Your task to perform on an android device: Open my contact list Image 0: 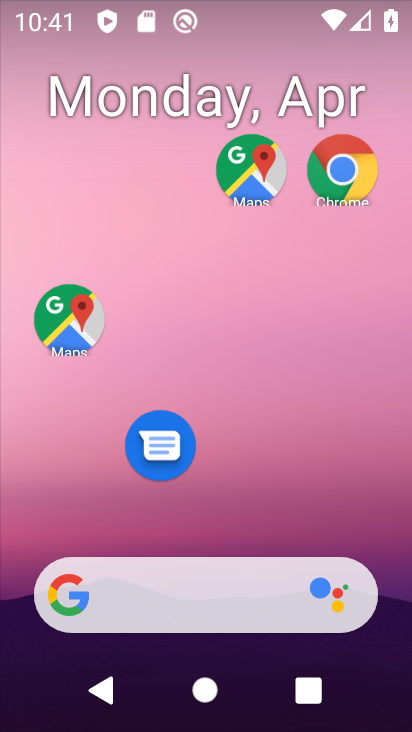
Step 0: drag from (222, 490) to (262, 63)
Your task to perform on an android device: Open my contact list Image 1: 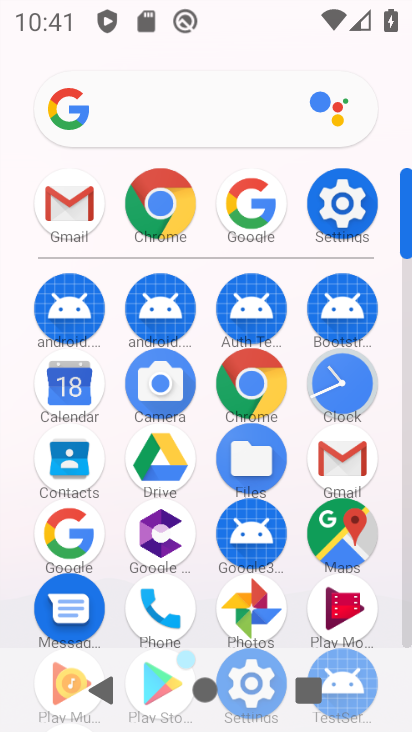
Step 1: click (70, 468)
Your task to perform on an android device: Open my contact list Image 2: 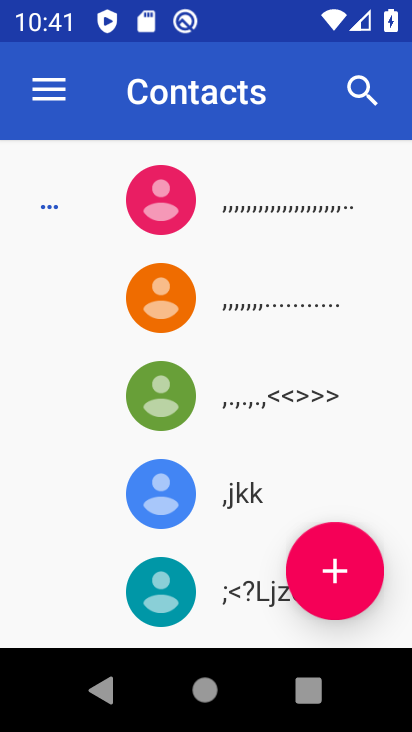
Step 2: task complete